Your task to perform on an android device: Clear all items from cart on bestbuy. Add dell alienware to the cart on bestbuy Image 0: 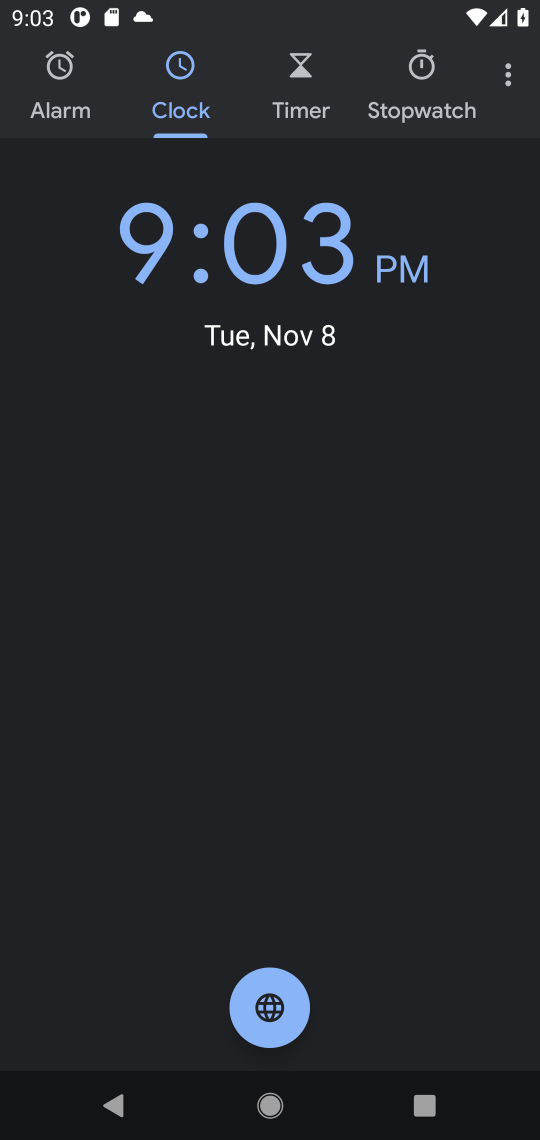
Step 0: press home button
Your task to perform on an android device: Clear all items from cart on bestbuy. Add dell alienware to the cart on bestbuy Image 1: 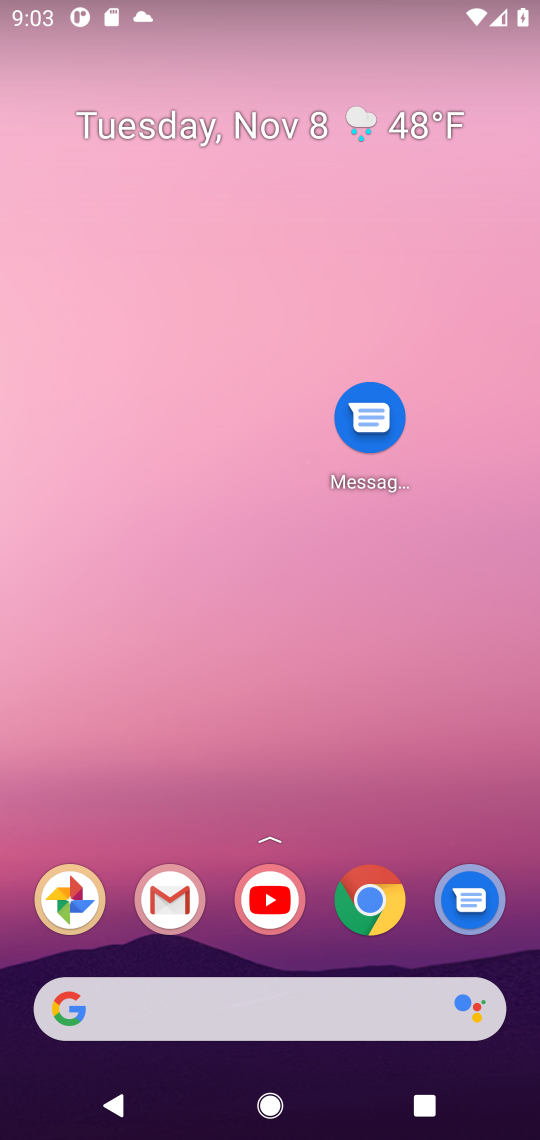
Step 1: drag from (280, 995) to (300, 363)
Your task to perform on an android device: Clear all items from cart on bestbuy. Add dell alienware to the cart on bestbuy Image 2: 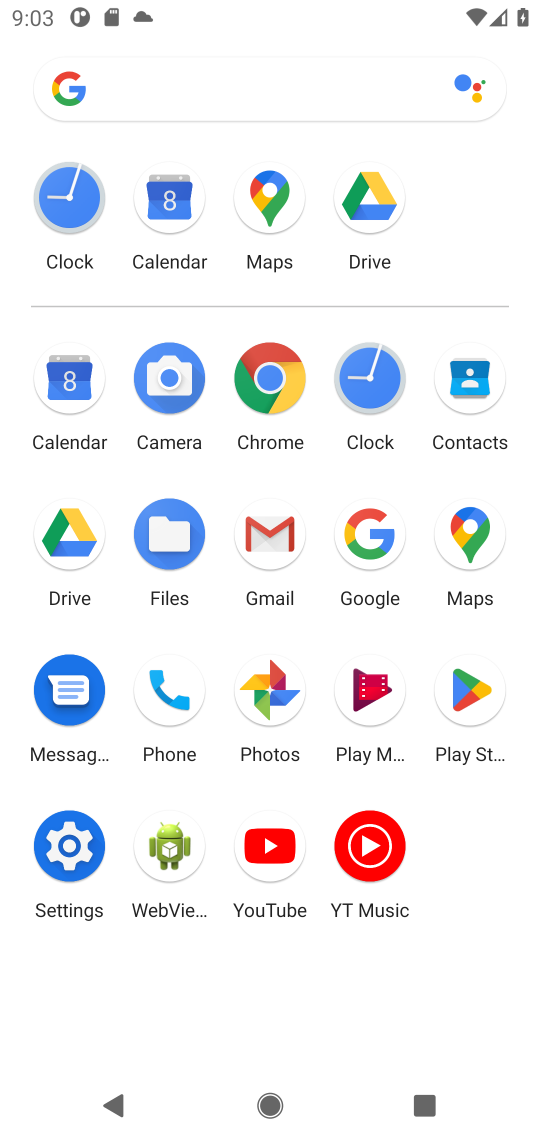
Step 2: click (371, 548)
Your task to perform on an android device: Clear all items from cart on bestbuy. Add dell alienware to the cart on bestbuy Image 3: 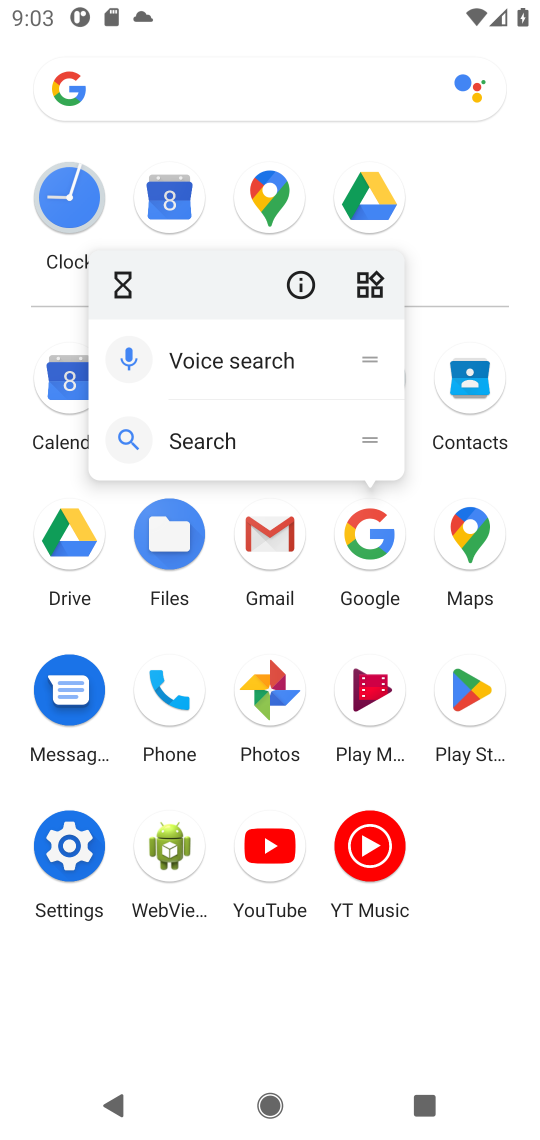
Step 3: click (371, 548)
Your task to perform on an android device: Clear all items from cart on bestbuy. Add dell alienware to the cart on bestbuy Image 4: 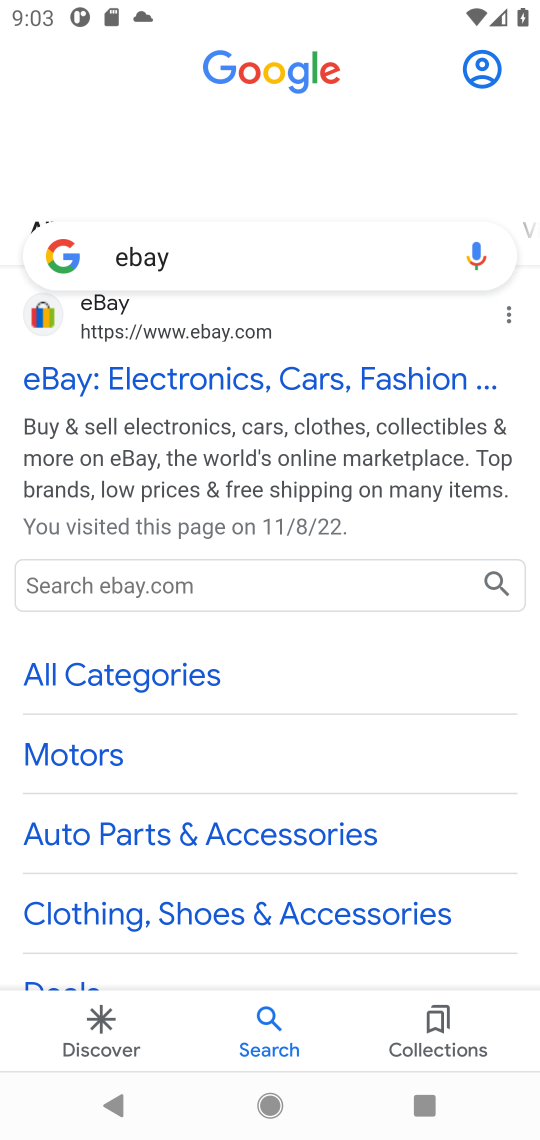
Step 4: click (228, 279)
Your task to perform on an android device: Clear all items from cart on bestbuy. Add dell alienware to the cart on bestbuy Image 5: 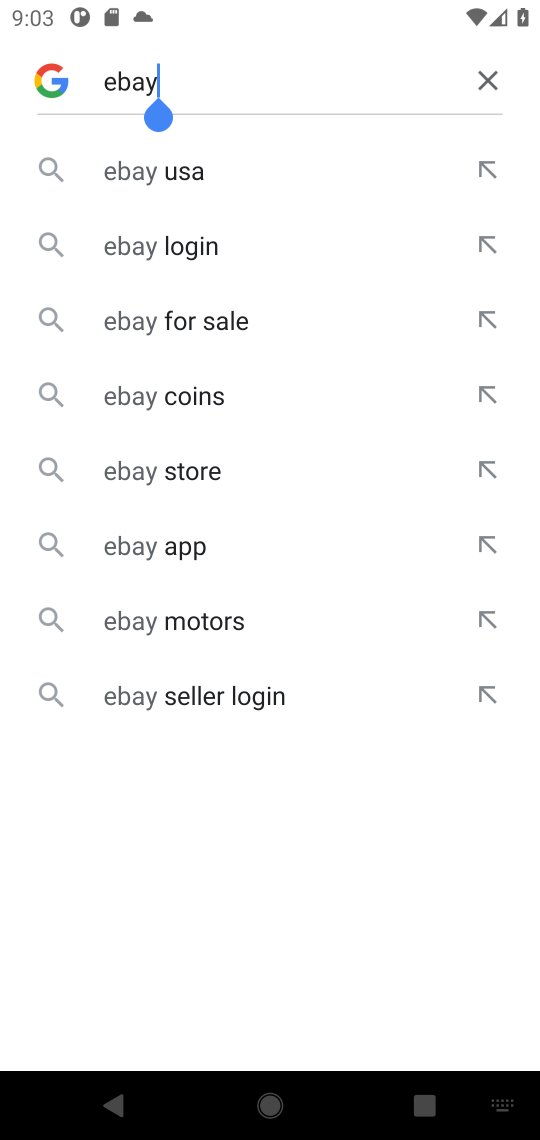
Step 5: click (488, 82)
Your task to perform on an android device: Clear all items from cart on bestbuy. Add dell alienware to the cart on bestbuy Image 6: 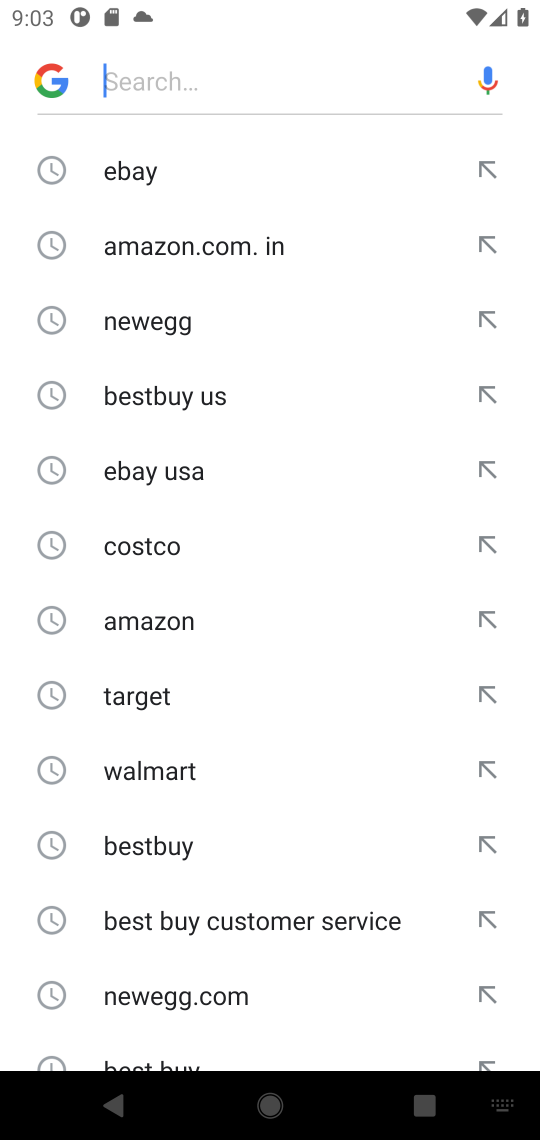
Step 6: click (189, 66)
Your task to perform on an android device: Clear all items from cart on bestbuy. Add dell alienware to the cart on bestbuy Image 7: 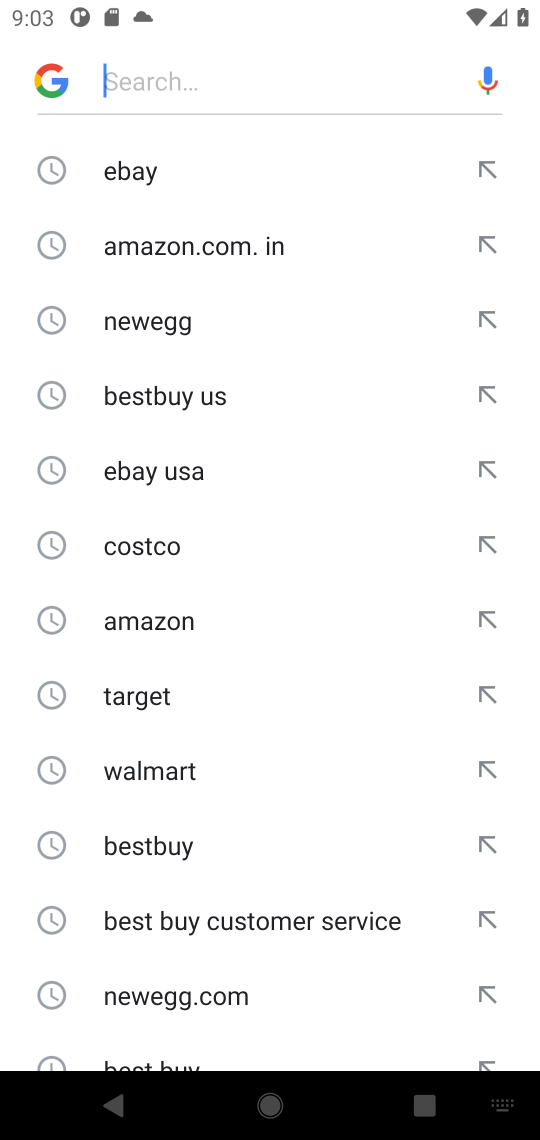
Step 7: type "bestbuy "
Your task to perform on an android device: Clear all items from cart on bestbuy. Add dell alienware to the cart on bestbuy Image 8: 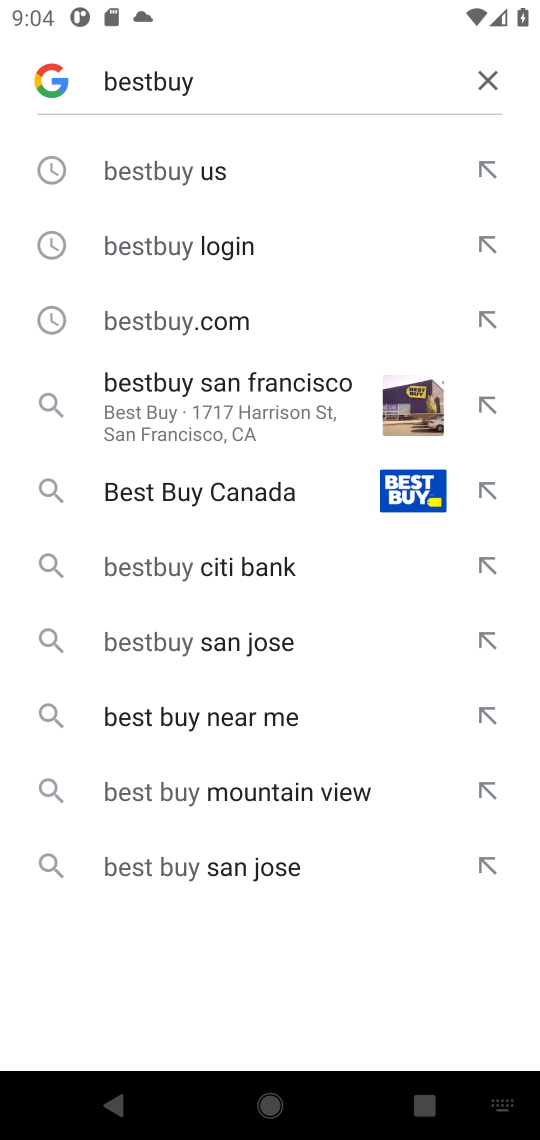
Step 8: click (162, 175)
Your task to perform on an android device: Clear all items from cart on bestbuy. Add dell alienware to the cart on bestbuy Image 9: 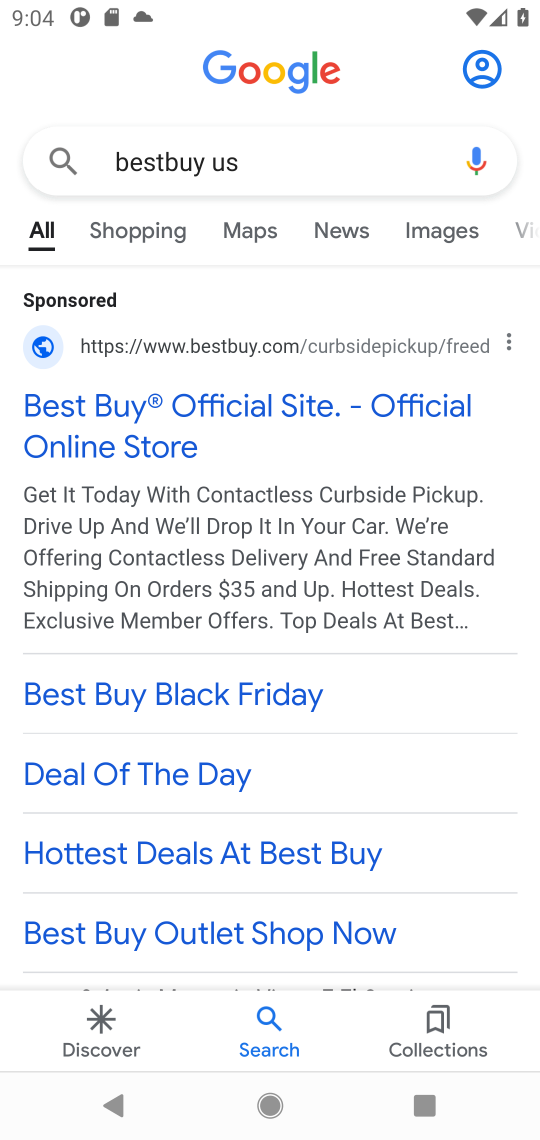
Step 9: drag from (116, 740) to (150, 238)
Your task to perform on an android device: Clear all items from cart on bestbuy. Add dell alienware to the cart on bestbuy Image 10: 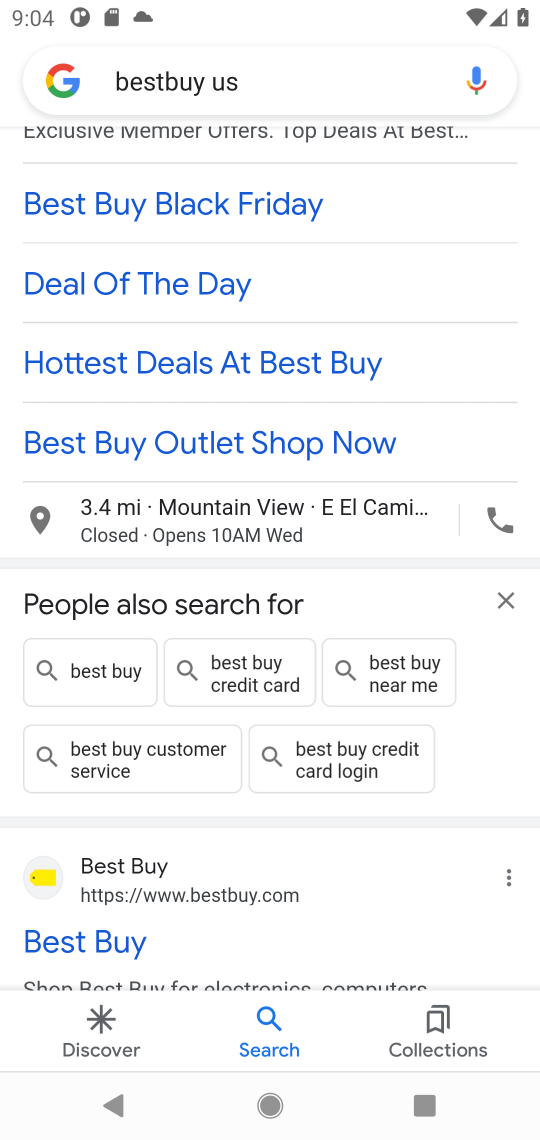
Step 10: drag from (90, 861) to (123, 569)
Your task to perform on an android device: Clear all items from cart on bestbuy. Add dell alienware to the cart on bestbuy Image 11: 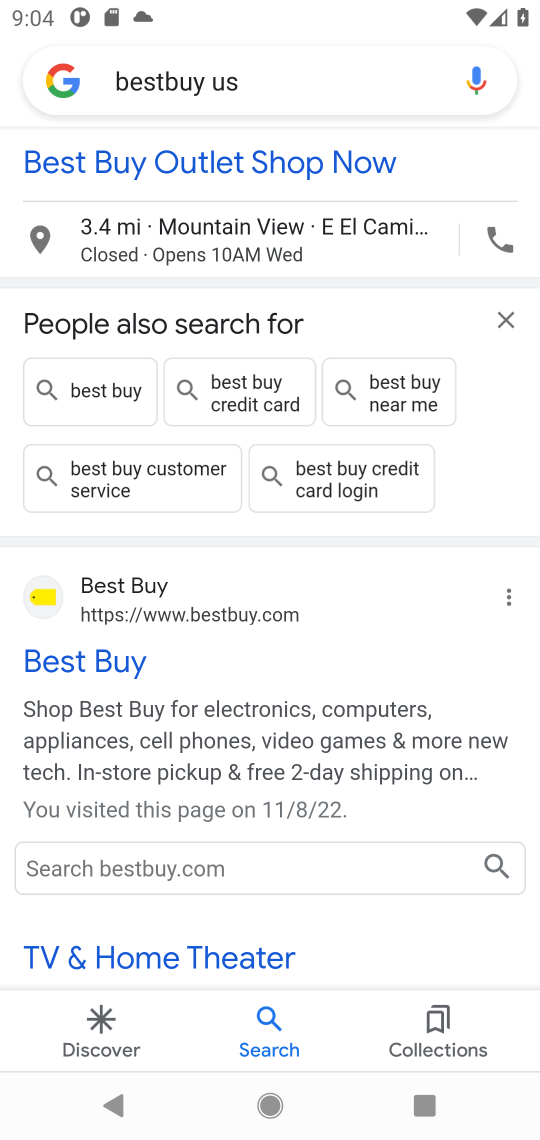
Step 11: click (34, 603)
Your task to perform on an android device: Clear all items from cart on bestbuy. Add dell alienware to the cart on bestbuy Image 12: 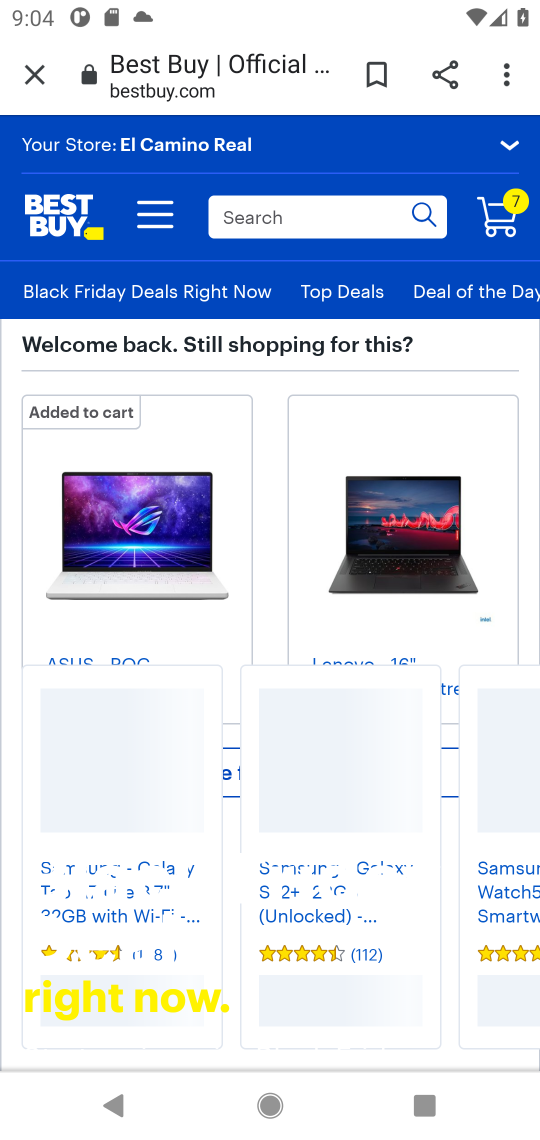
Step 12: click (275, 205)
Your task to perform on an android device: Clear all items from cart on bestbuy. Add dell alienware to the cart on bestbuy Image 13: 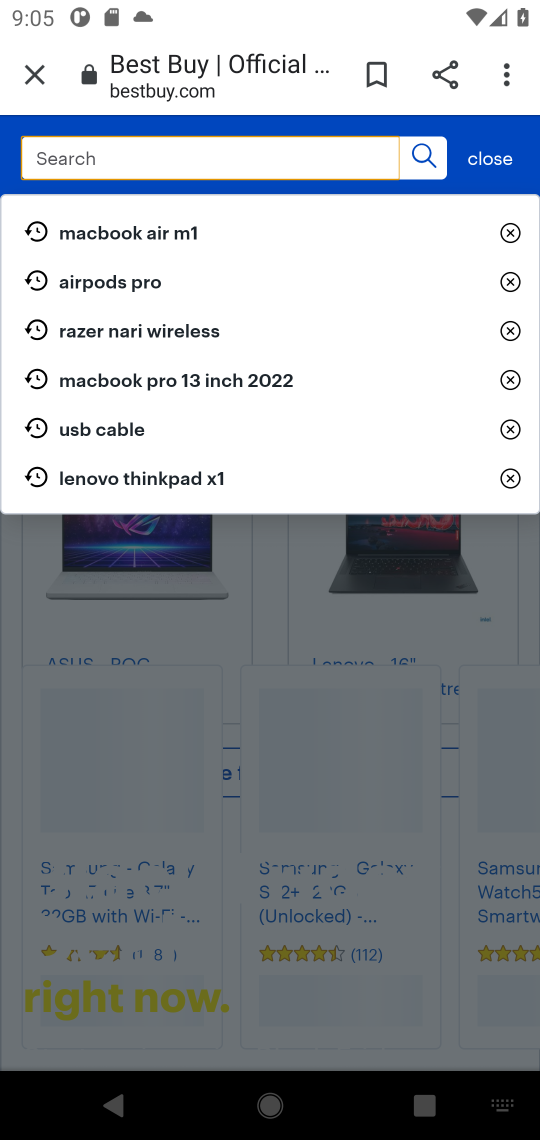
Step 13: click (246, 154)
Your task to perform on an android device: Clear all items from cart on bestbuy. Add dell alienware to the cart on bestbuy Image 14: 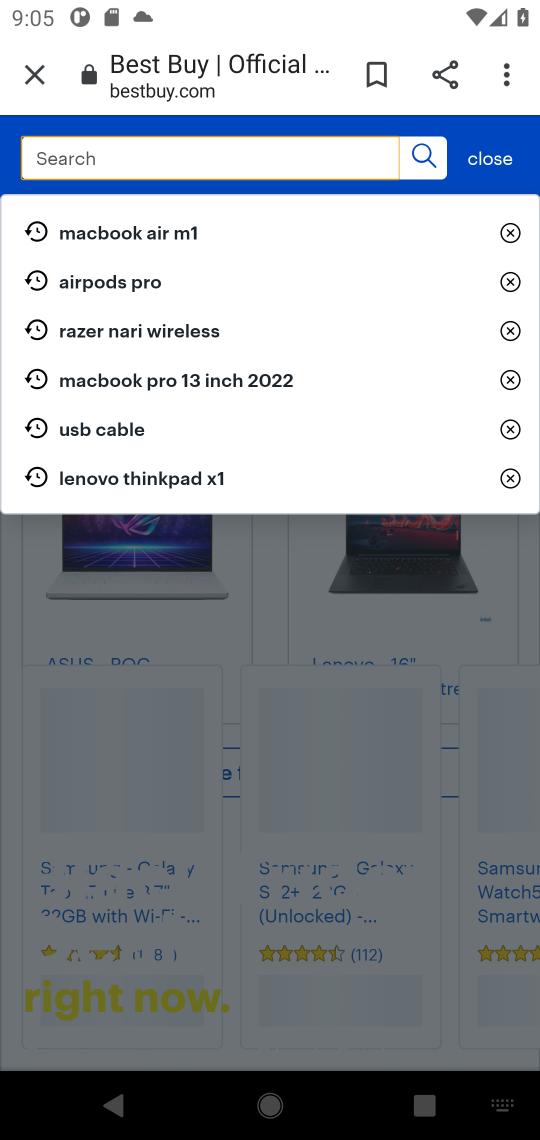
Step 14: click (237, 141)
Your task to perform on an android device: Clear all items from cart on bestbuy. Add dell alienware to the cart on bestbuy Image 15: 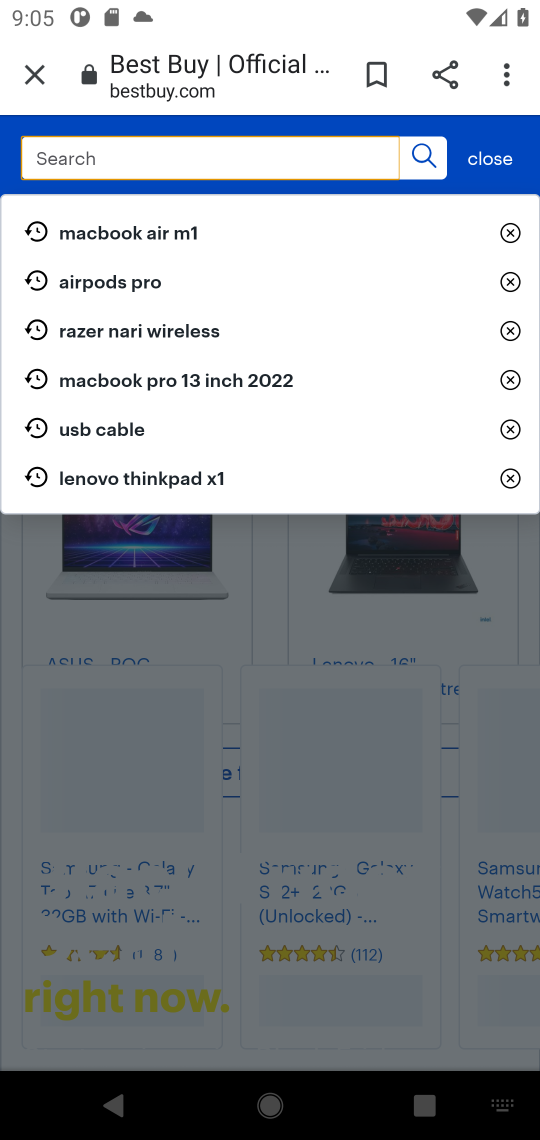
Step 15: type "dell alienware "
Your task to perform on an android device: Clear all items from cart on bestbuy. Add dell alienware to the cart on bestbuy Image 16: 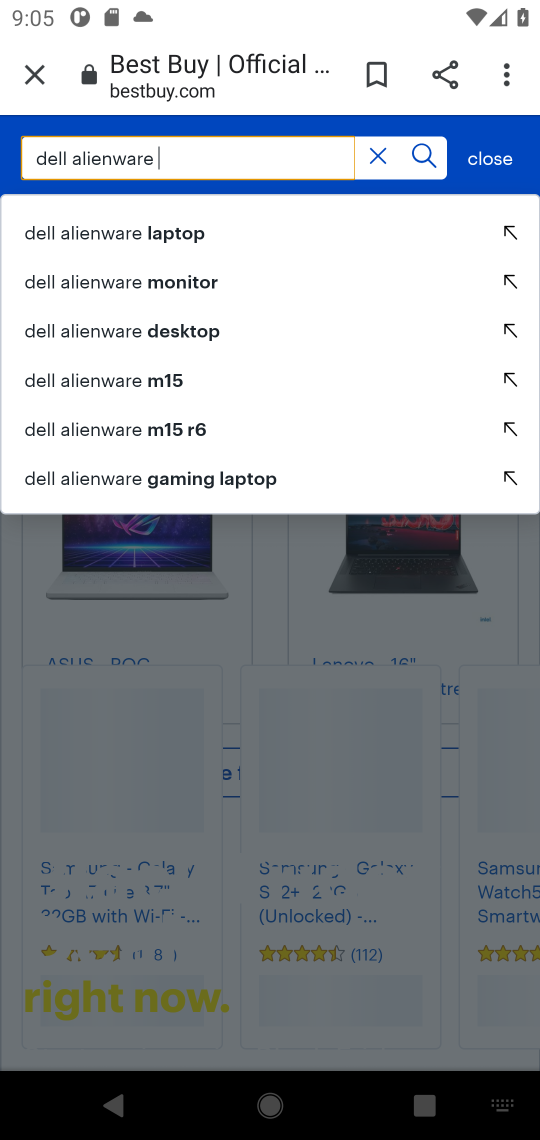
Step 16: click (153, 231)
Your task to perform on an android device: Clear all items from cart on bestbuy. Add dell alienware to the cart on bestbuy Image 17: 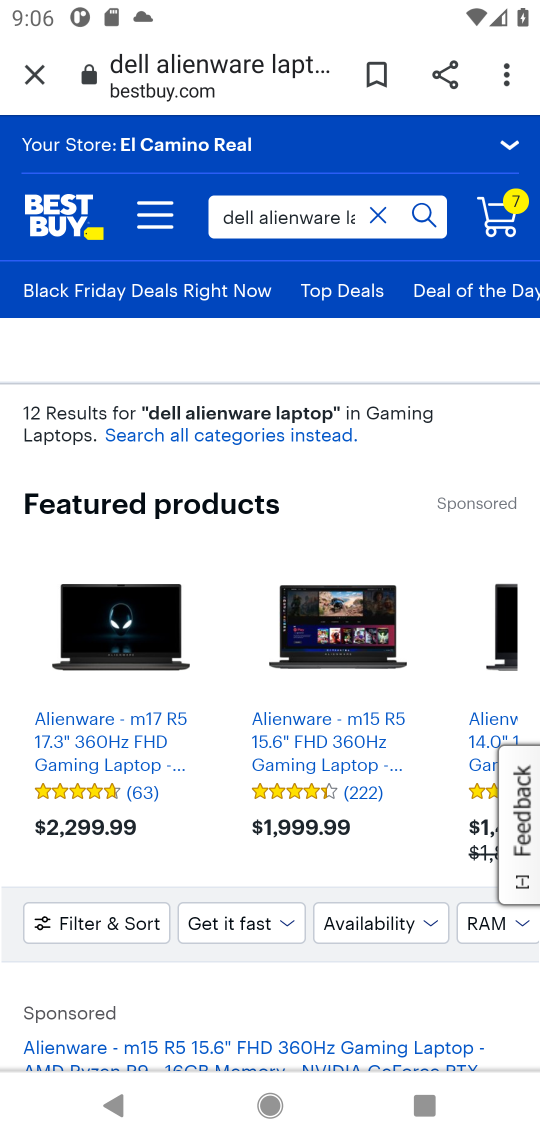
Step 17: click (121, 624)
Your task to perform on an android device: Clear all items from cart on bestbuy. Add dell alienware to the cart on bestbuy Image 18: 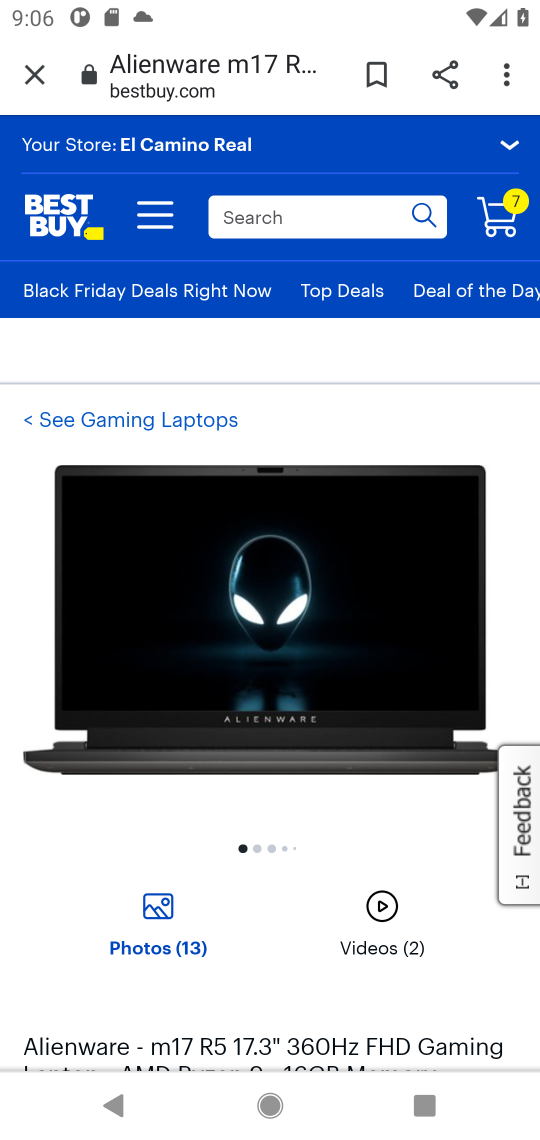
Step 18: drag from (239, 945) to (268, 301)
Your task to perform on an android device: Clear all items from cart on bestbuy. Add dell alienware to the cart on bestbuy Image 19: 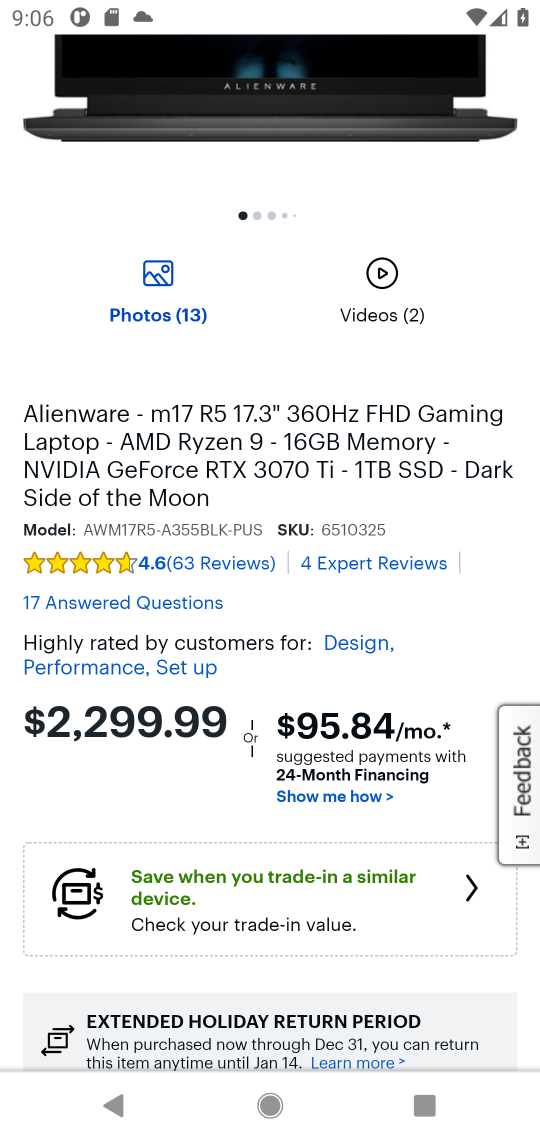
Step 19: drag from (142, 898) to (278, 358)
Your task to perform on an android device: Clear all items from cart on bestbuy. Add dell alienware to the cart on bestbuy Image 20: 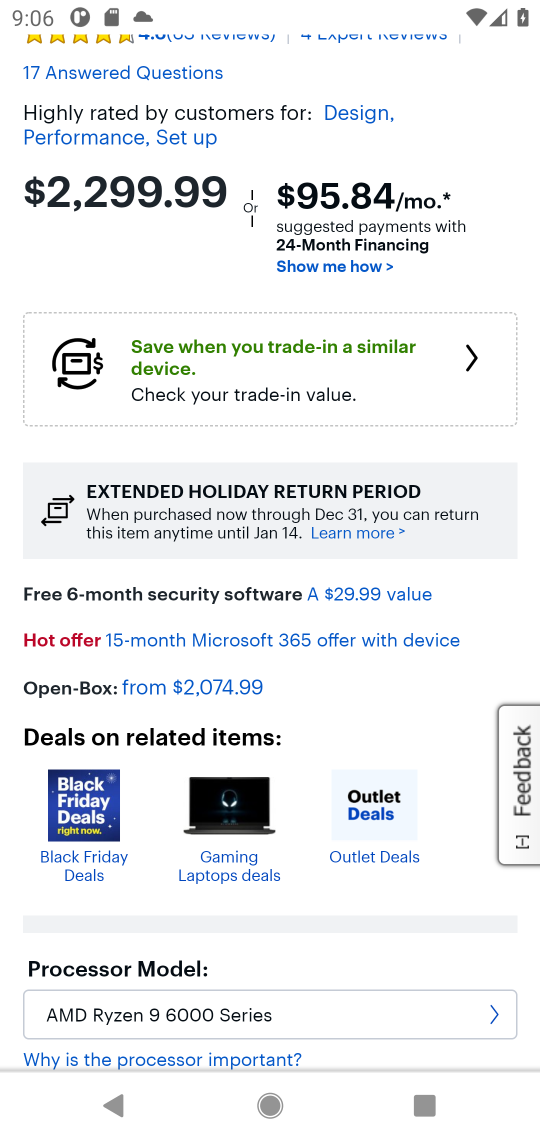
Step 20: drag from (139, 935) to (218, 394)
Your task to perform on an android device: Clear all items from cart on bestbuy. Add dell alienware to the cart on bestbuy Image 21: 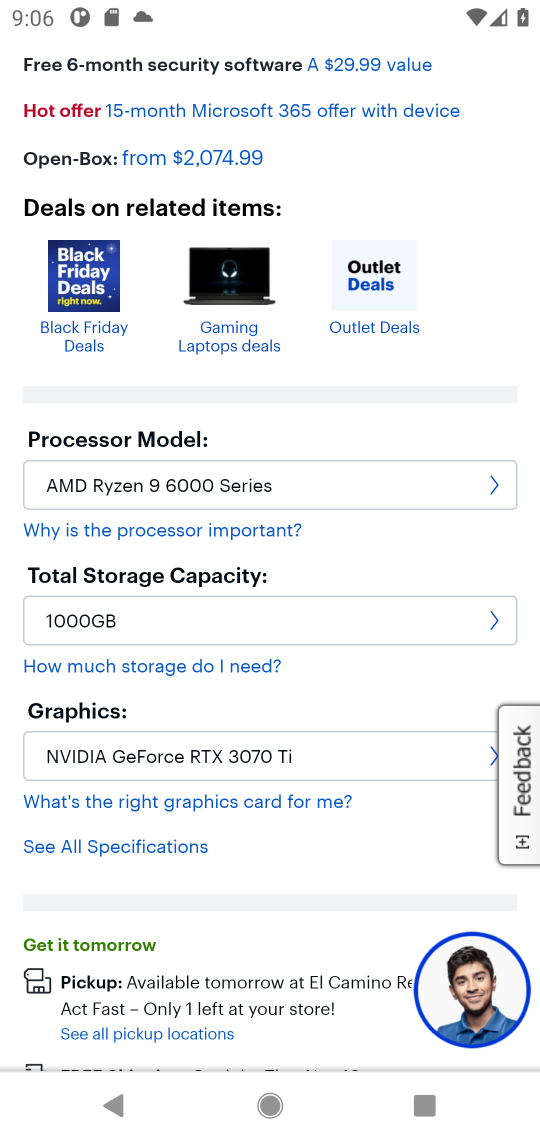
Step 21: drag from (319, 846) to (363, 179)
Your task to perform on an android device: Clear all items from cart on bestbuy. Add dell alienware to the cart on bestbuy Image 22: 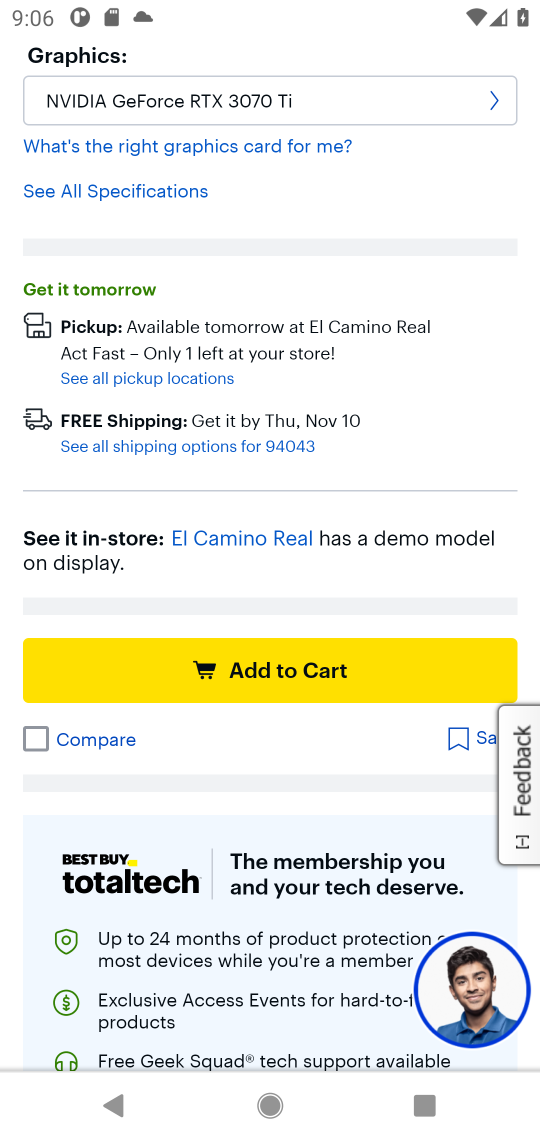
Step 22: click (307, 651)
Your task to perform on an android device: Clear all items from cart on bestbuy. Add dell alienware to the cart on bestbuy Image 23: 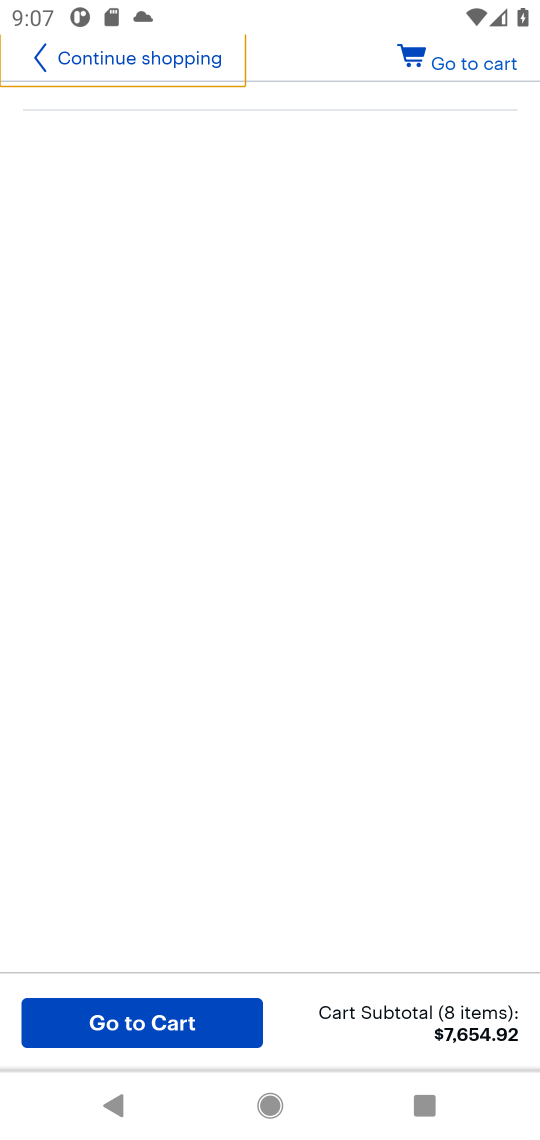
Step 23: task complete